Your task to perform on an android device: What's on my calendar today? Image 0: 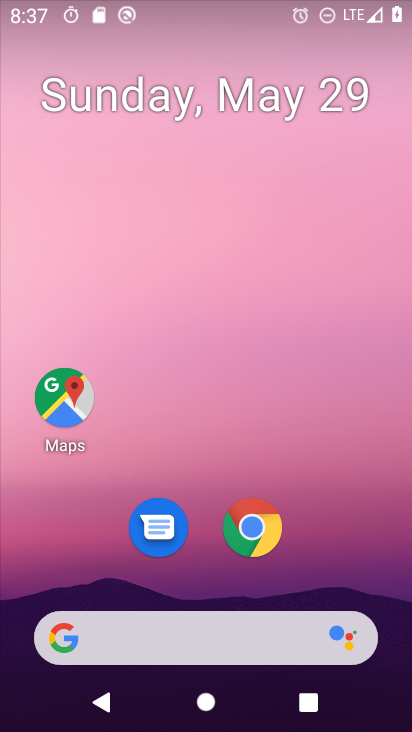
Step 0: drag from (383, 614) to (186, 32)
Your task to perform on an android device: What's on my calendar today? Image 1: 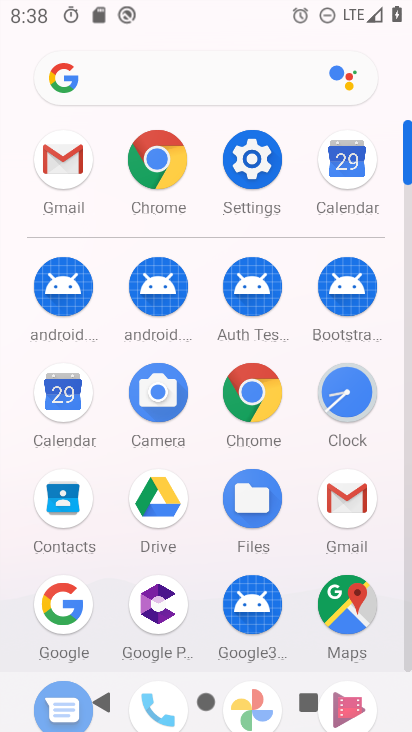
Step 1: click (342, 170)
Your task to perform on an android device: What's on my calendar today? Image 2: 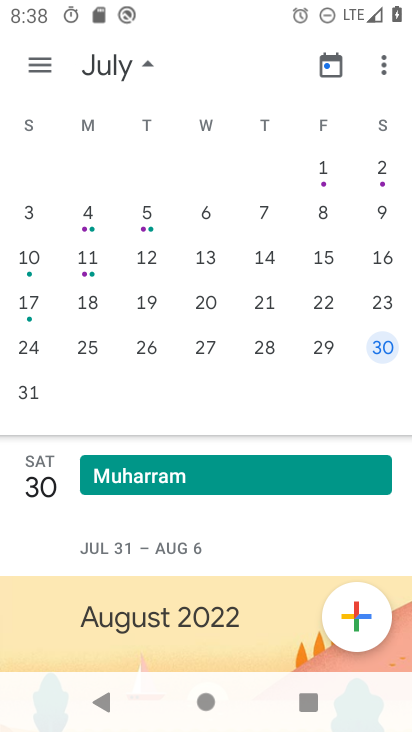
Step 2: click (23, 390)
Your task to perform on an android device: What's on my calendar today? Image 3: 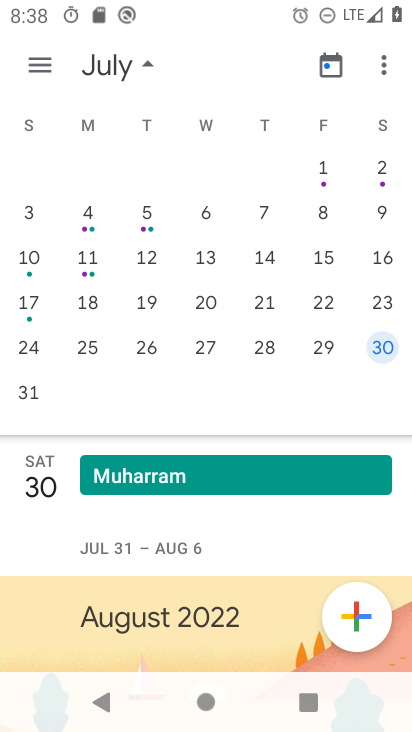
Step 3: task complete